Your task to perform on an android device: choose inbox layout in the gmail app Image 0: 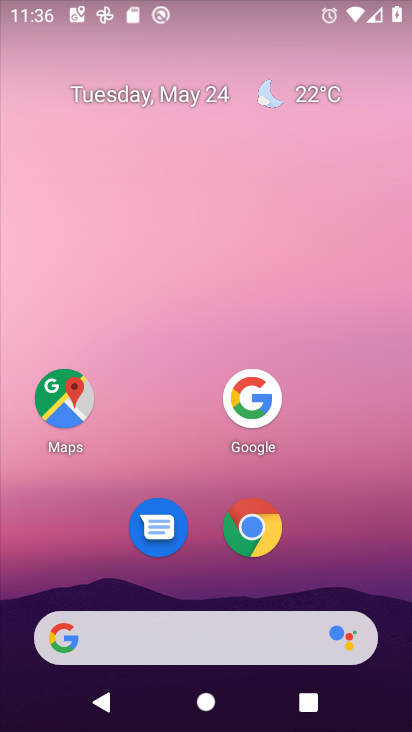
Step 0: press home button
Your task to perform on an android device: choose inbox layout in the gmail app Image 1: 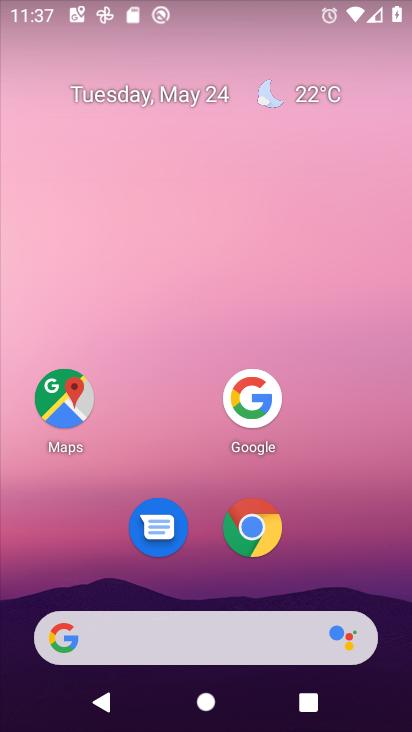
Step 1: drag from (178, 645) to (289, 269)
Your task to perform on an android device: choose inbox layout in the gmail app Image 2: 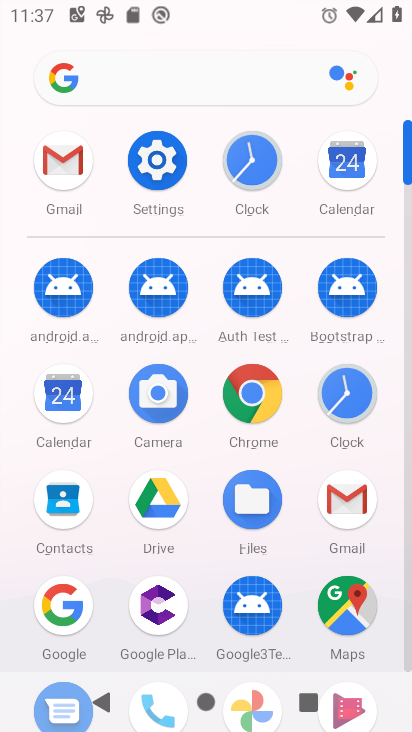
Step 2: click (68, 162)
Your task to perform on an android device: choose inbox layout in the gmail app Image 3: 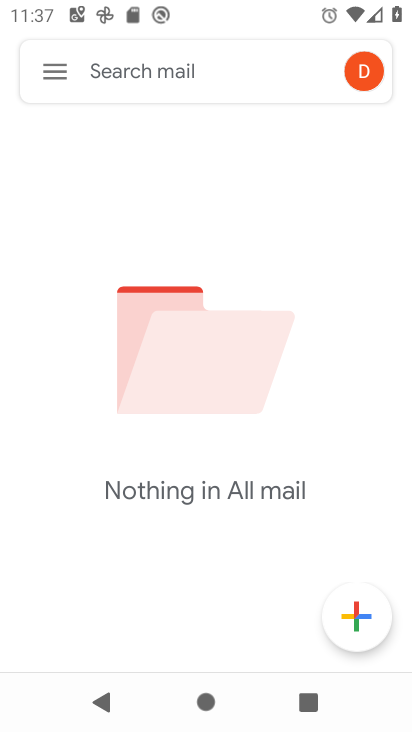
Step 3: click (58, 74)
Your task to perform on an android device: choose inbox layout in the gmail app Image 4: 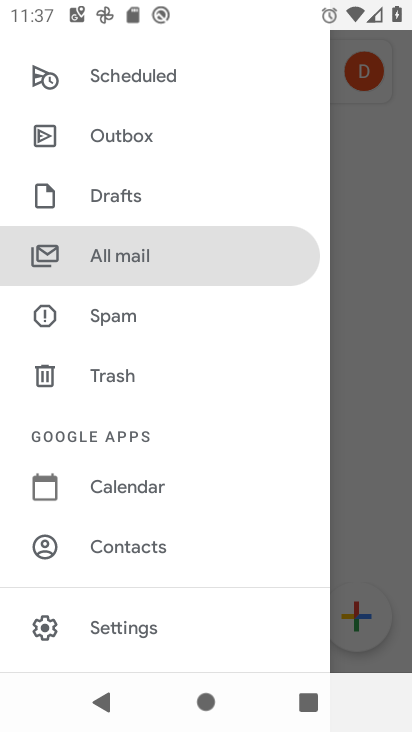
Step 4: drag from (218, 567) to (247, 431)
Your task to perform on an android device: choose inbox layout in the gmail app Image 5: 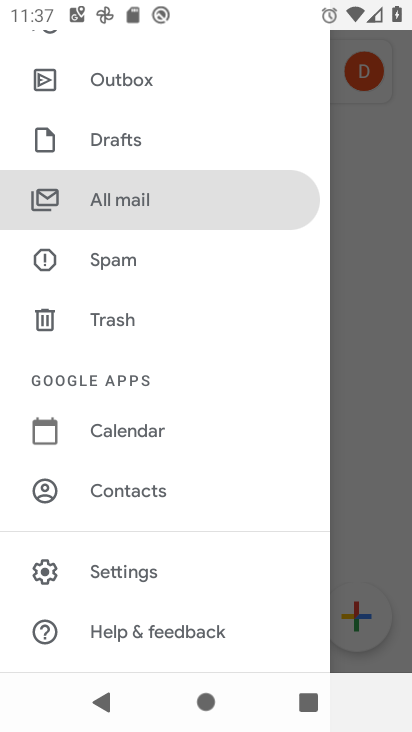
Step 5: click (133, 570)
Your task to perform on an android device: choose inbox layout in the gmail app Image 6: 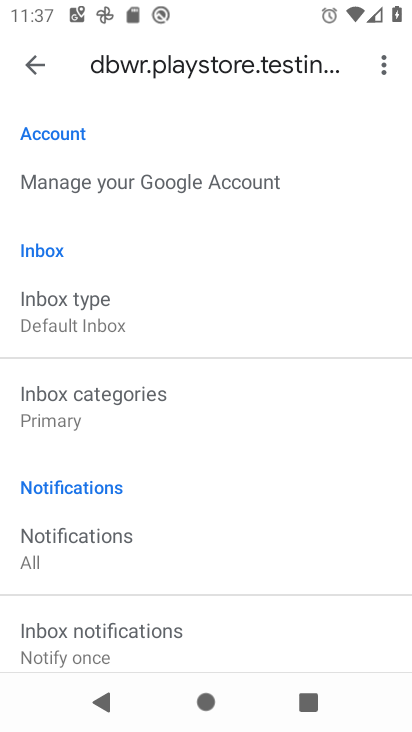
Step 6: click (101, 320)
Your task to perform on an android device: choose inbox layout in the gmail app Image 7: 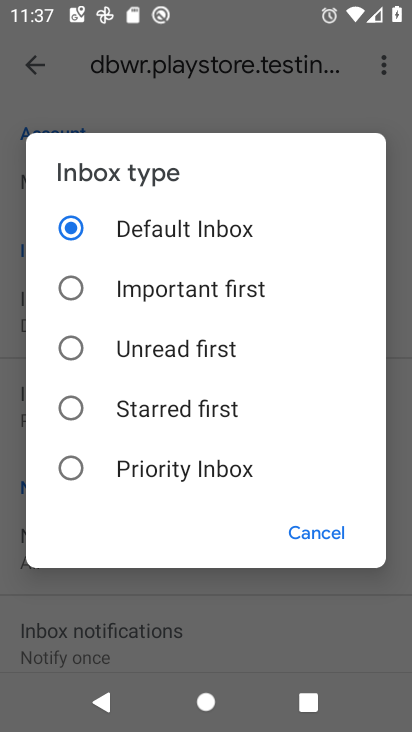
Step 7: click (66, 400)
Your task to perform on an android device: choose inbox layout in the gmail app Image 8: 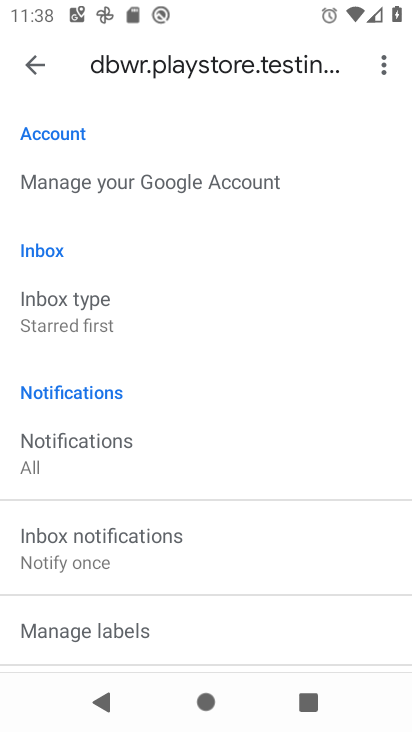
Step 8: task complete